Your task to perform on an android device: allow notifications from all sites in the chrome app Image 0: 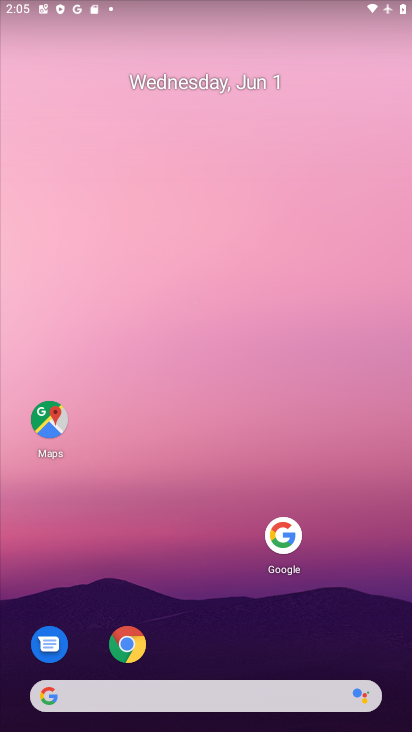
Step 0: click (123, 644)
Your task to perform on an android device: allow notifications from all sites in the chrome app Image 1: 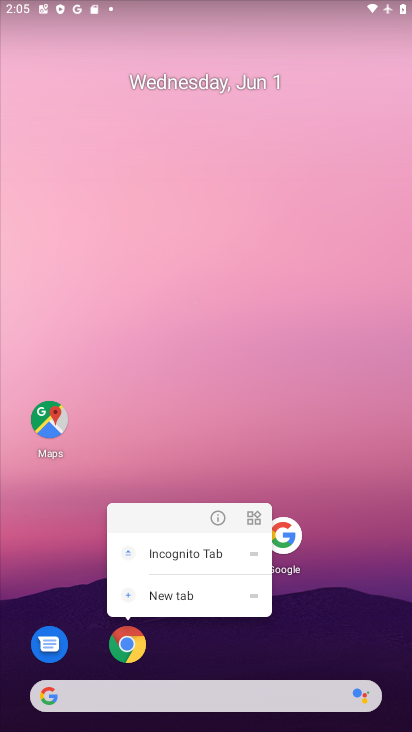
Step 1: click (133, 645)
Your task to perform on an android device: allow notifications from all sites in the chrome app Image 2: 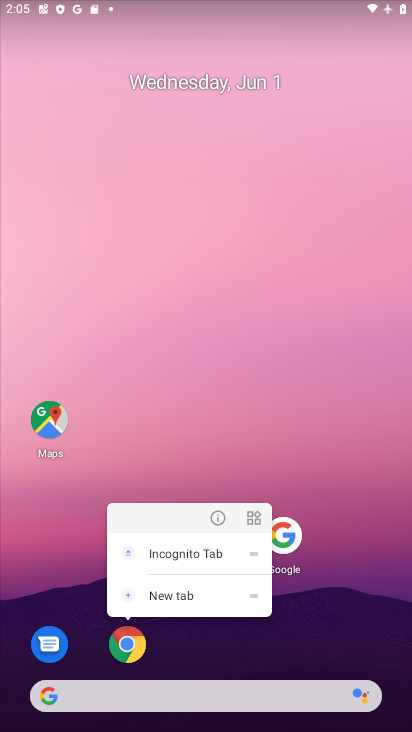
Step 2: click (129, 645)
Your task to perform on an android device: allow notifications from all sites in the chrome app Image 3: 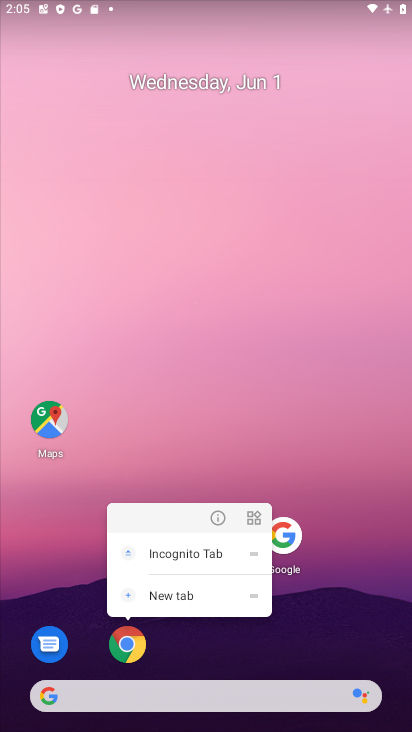
Step 3: click (129, 644)
Your task to perform on an android device: allow notifications from all sites in the chrome app Image 4: 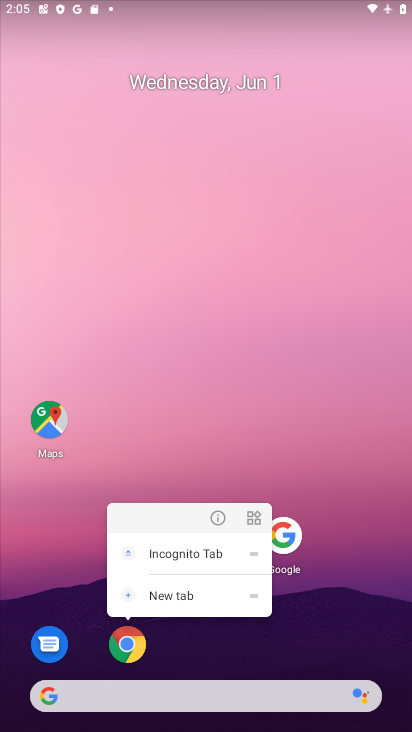
Step 4: click (127, 649)
Your task to perform on an android device: allow notifications from all sites in the chrome app Image 5: 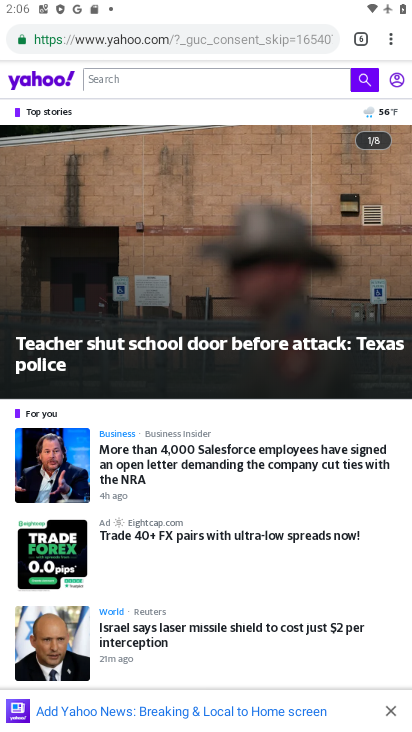
Step 5: drag from (390, 42) to (300, 506)
Your task to perform on an android device: allow notifications from all sites in the chrome app Image 6: 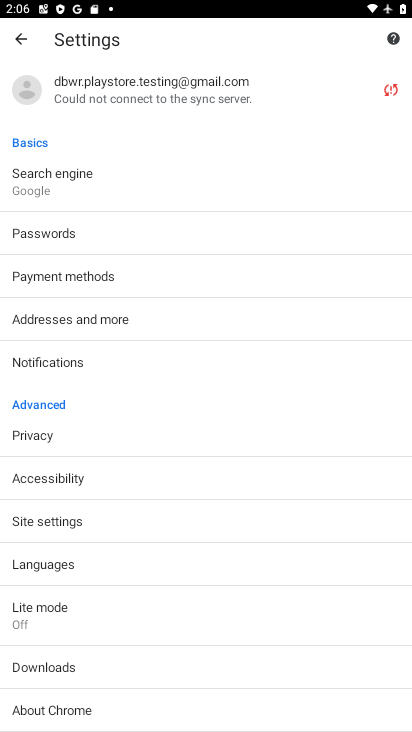
Step 6: click (60, 522)
Your task to perform on an android device: allow notifications from all sites in the chrome app Image 7: 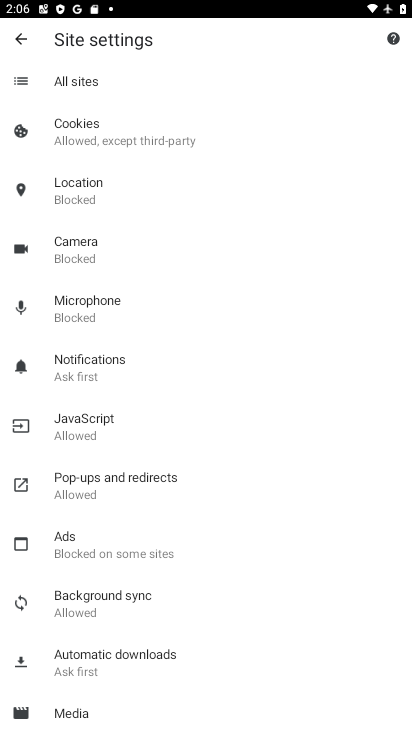
Step 7: click (103, 370)
Your task to perform on an android device: allow notifications from all sites in the chrome app Image 8: 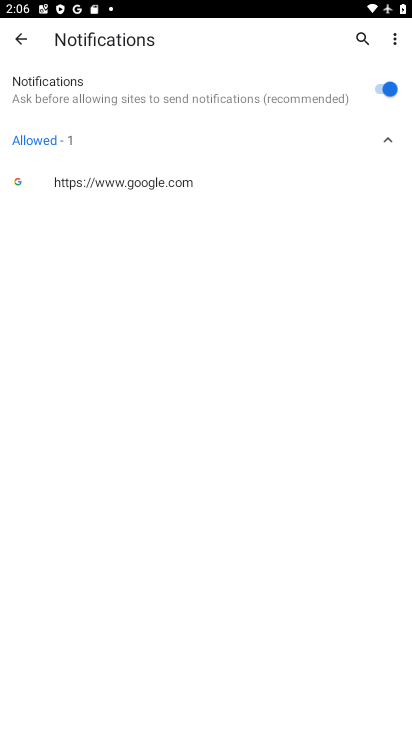
Step 8: task complete